Your task to perform on an android device: Go to Google maps Image 0: 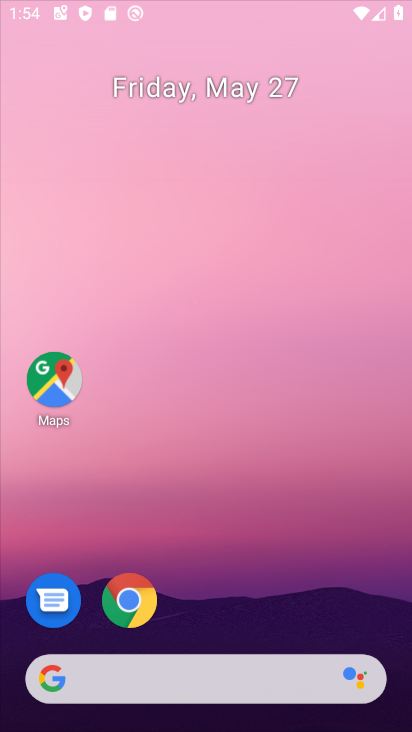
Step 0: drag from (210, 715) to (215, 139)
Your task to perform on an android device: Go to Google maps Image 1: 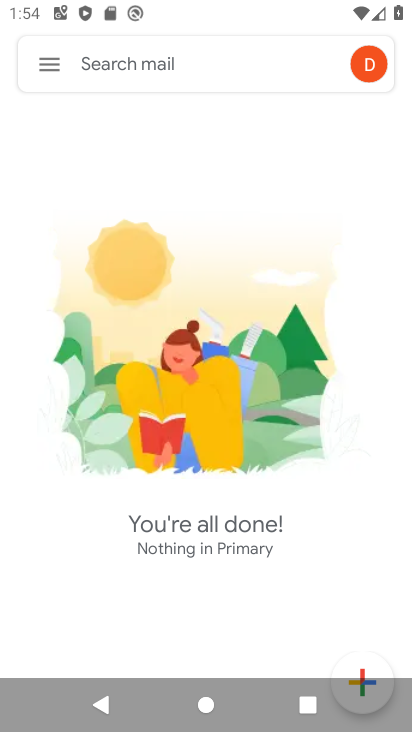
Step 1: press home button
Your task to perform on an android device: Go to Google maps Image 2: 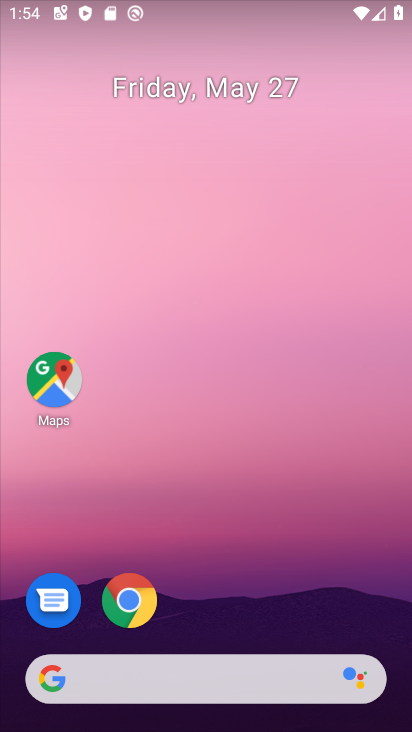
Step 2: drag from (210, 722) to (211, 107)
Your task to perform on an android device: Go to Google maps Image 3: 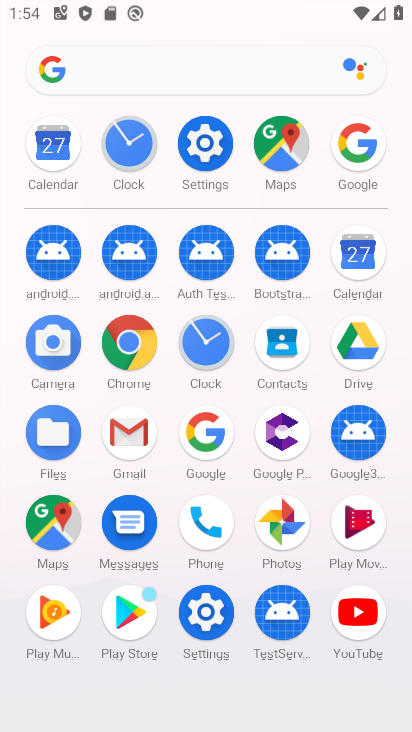
Step 3: click (49, 525)
Your task to perform on an android device: Go to Google maps Image 4: 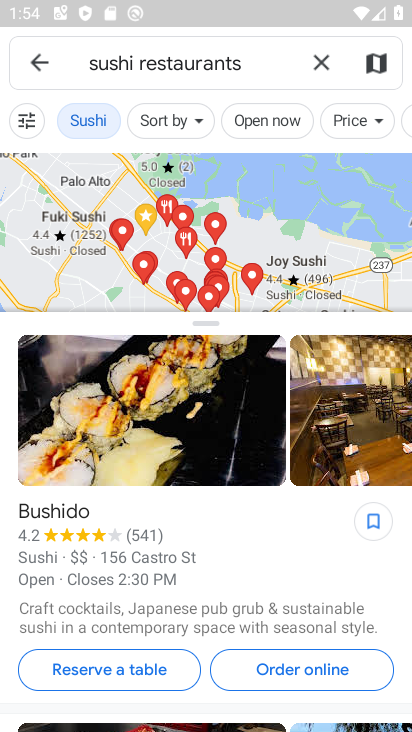
Step 4: task complete